Your task to perform on an android device: make emails show in primary in the gmail app Image 0: 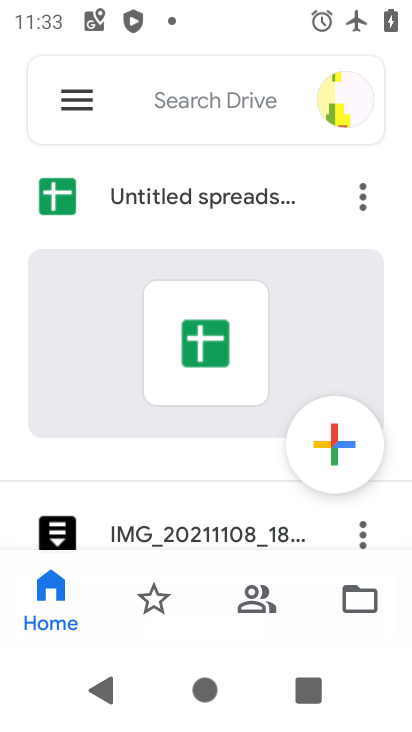
Step 0: press home button
Your task to perform on an android device: make emails show in primary in the gmail app Image 1: 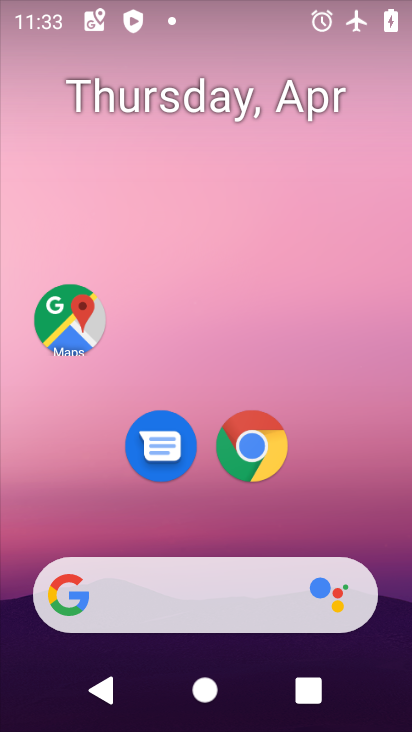
Step 1: drag from (331, 511) to (223, 178)
Your task to perform on an android device: make emails show in primary in the gmail app Image 2: 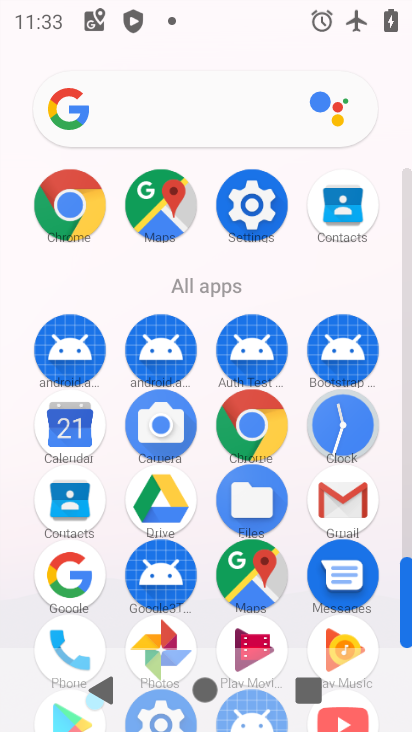
Step 2: click (341, 493)
Your task to perform on an android device: make emails show in primary in the gmail app Image 3: 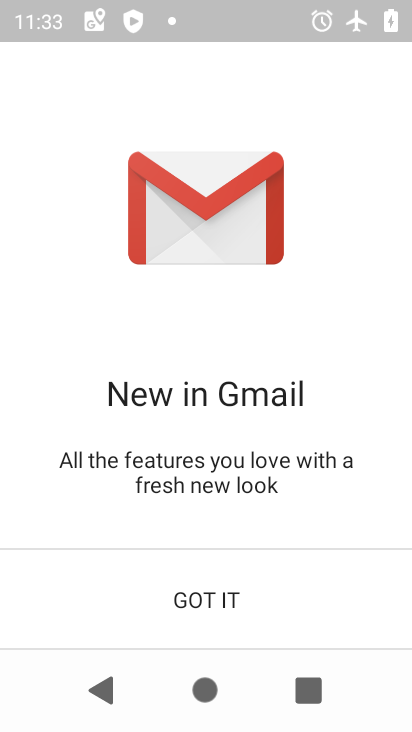
Step 3: click (207, 590)
Your task to perform on an android device: make emails show in primary in the gmail app Image 4: 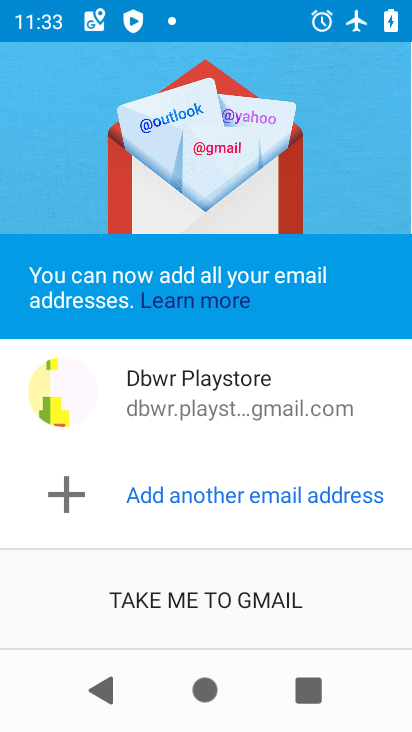
Step 4: click (207, 590)
Your task to perform on an android device: make emails show in primary in the gmail app Image 5: 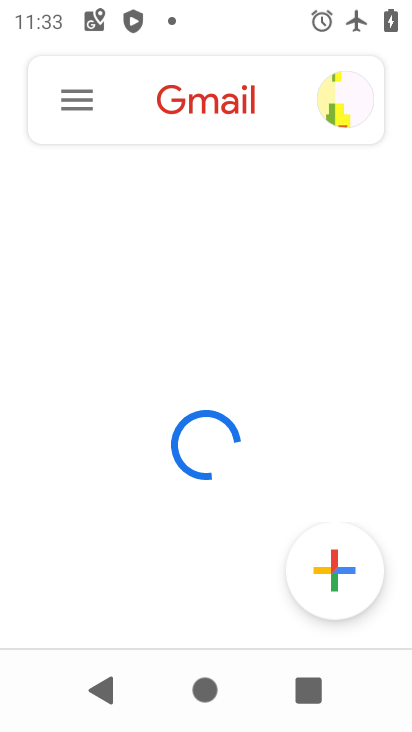
Step 5: drag from (8, 605) to (206, 590)
Your task to perform on an android device: make emails show in primary in the gmail app Image 6: 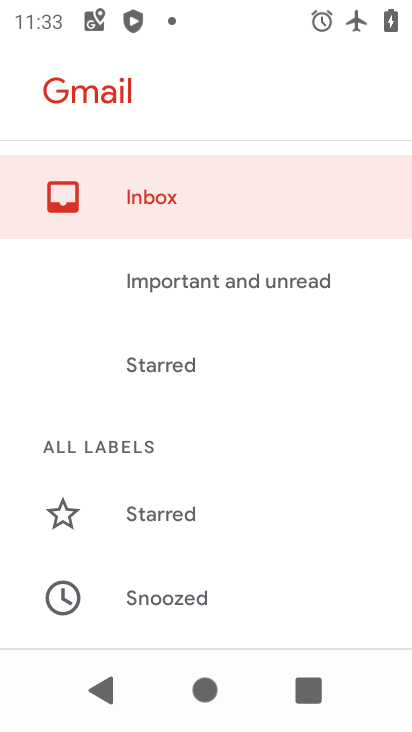
Step 6: drag from (245, 618) to (247, 258)
Your task to perform on an android device: make emails show in primary in the gmail app Image 7: 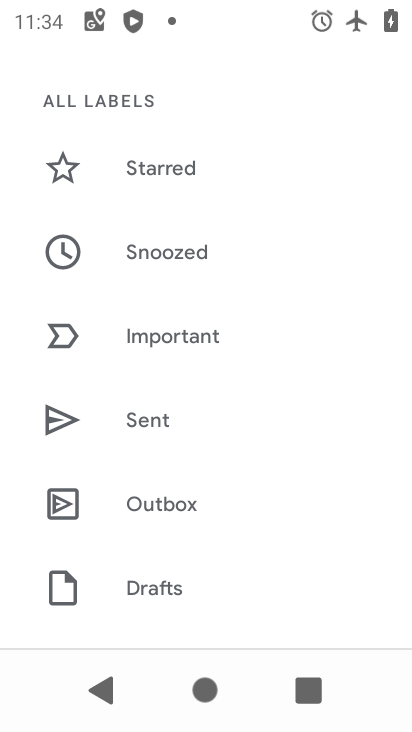
Step 7: drag from (249, 556) to (219, 110)
Your task to perform on an android device: make emails show in primary in the gmail app Image 8: 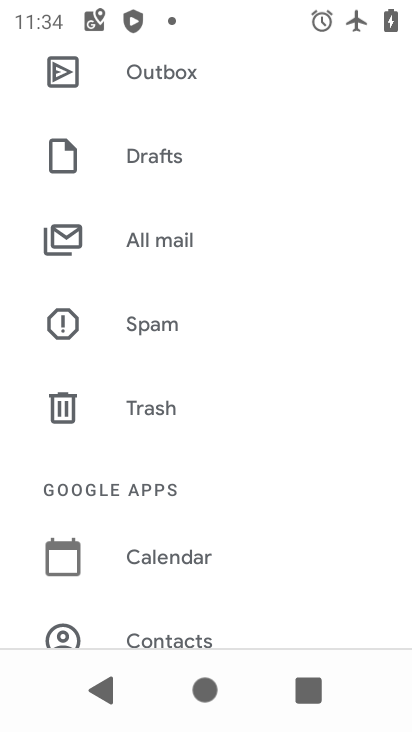
Step 8: drag from (252, 379) to (228, 136)
Your task to perform on an android device: make emails show in primary in the gmail app Image 9: 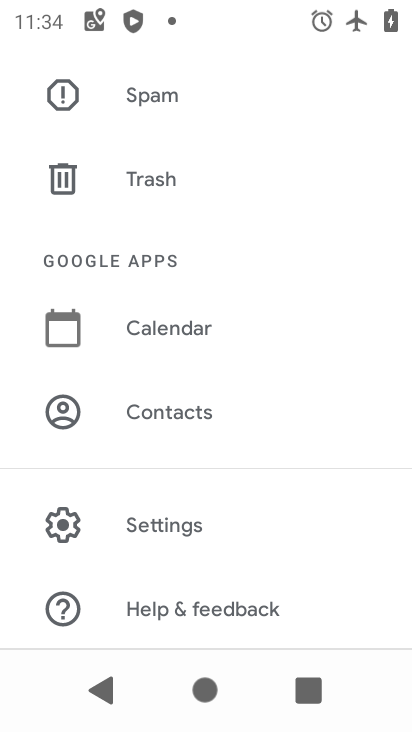
Step 9: click (229, 545)
Your task to perform on an android device: make emails show in primary in the gmail app Image 10: 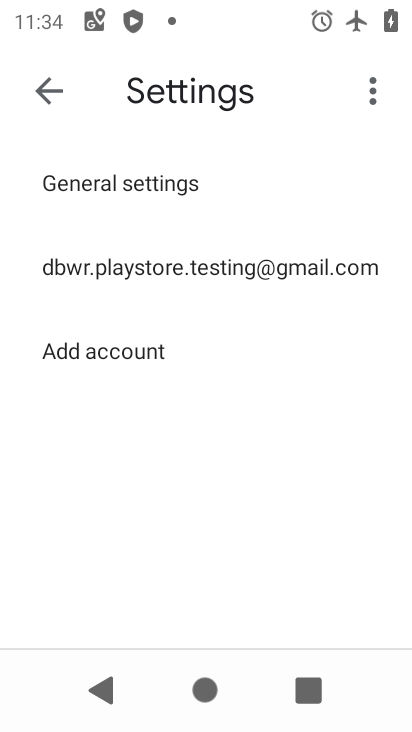
Step 10: click (294, 273)
Your task to perform on an android device: make emails show in primary in the gmail app Image 11: 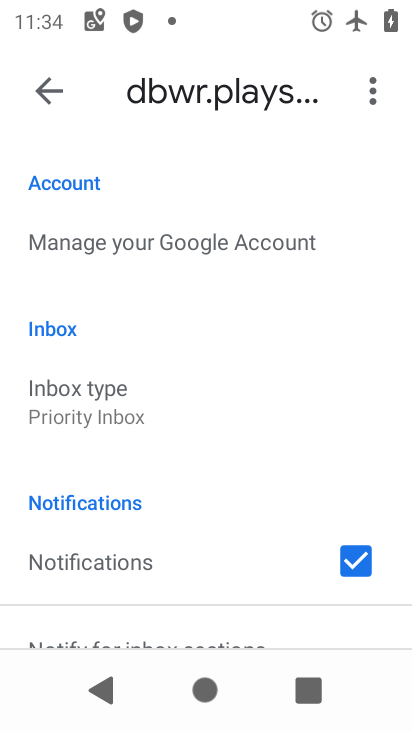
Step 11: click (245, 404)
Your task to perform on an android device: make emails show in primary in the gmail app Image 12: 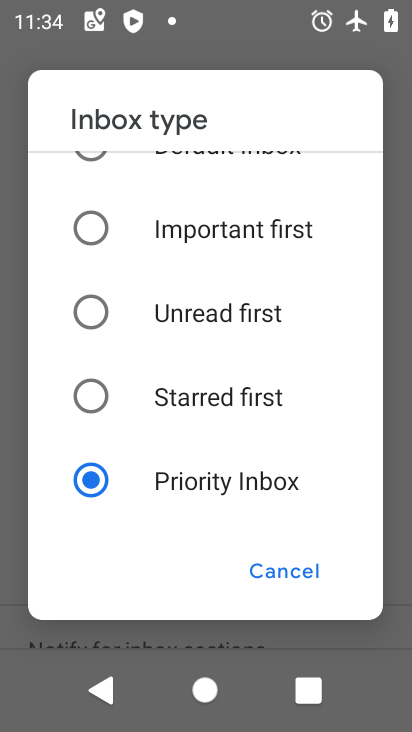
Step 12: click (248, 162)
Your task to perform on an android device: make emails show in primary in the gmail app Image 13: 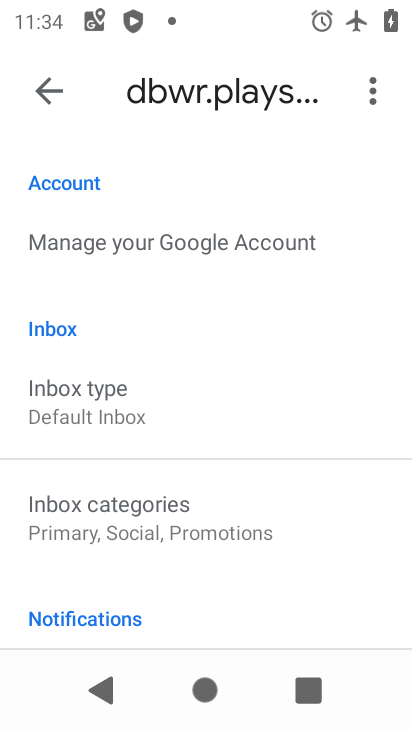
Step 13: task complete